Your task to perform on an android device: Go to wifi settings Image 0: 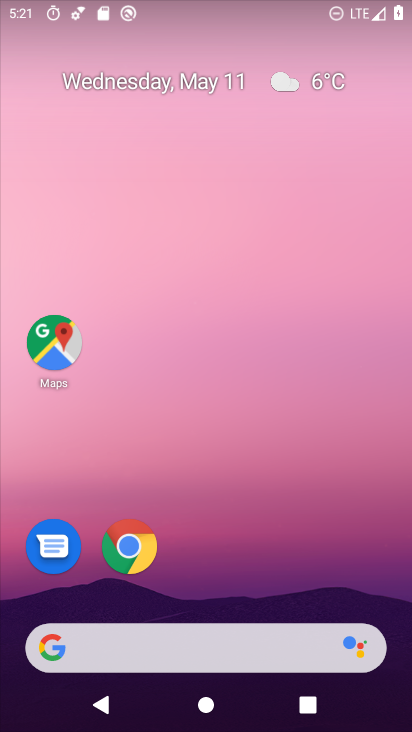
Step 0: drag from (180, 541) to (184, 346)
Your task to perform on an android device: Go to wifi settings Image 1: 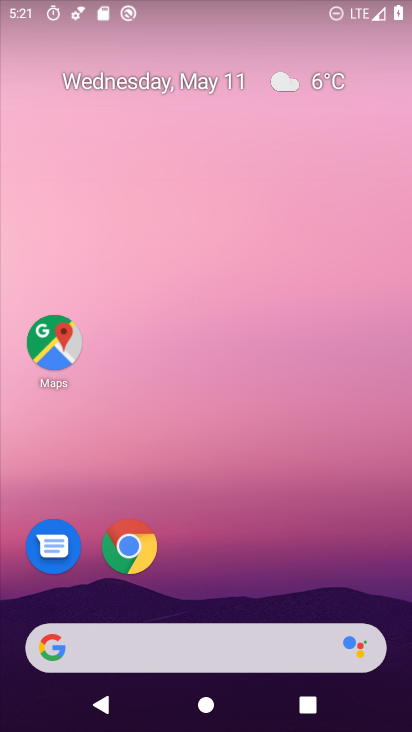
Step 1: drag from (212, 614) to (220, 109)
Your task to perform on an android device: Go to wifi settings Image 2: 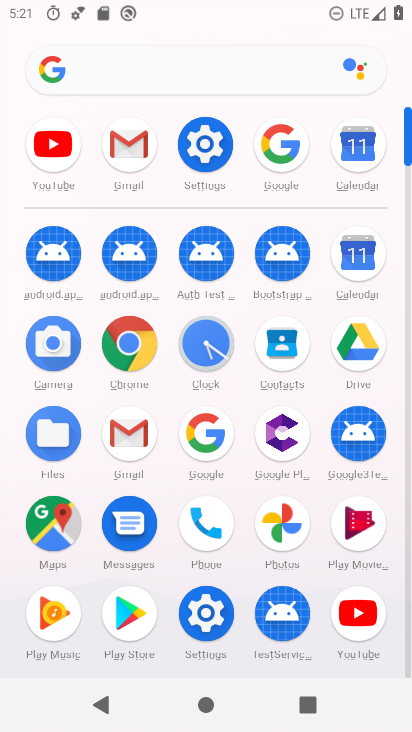
Step 2: click (200, 149)
Your task to perform on an android device: Go to wifi settings Image 3: 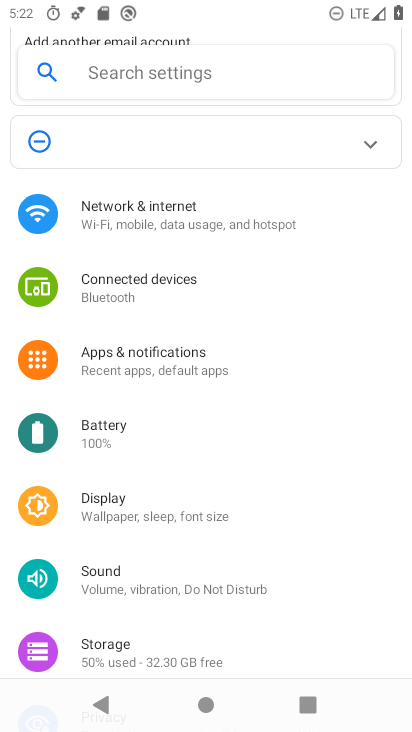
Step 3: click (217, 220)
Your task to perform on an android device: Go to wifi settings Image 4: 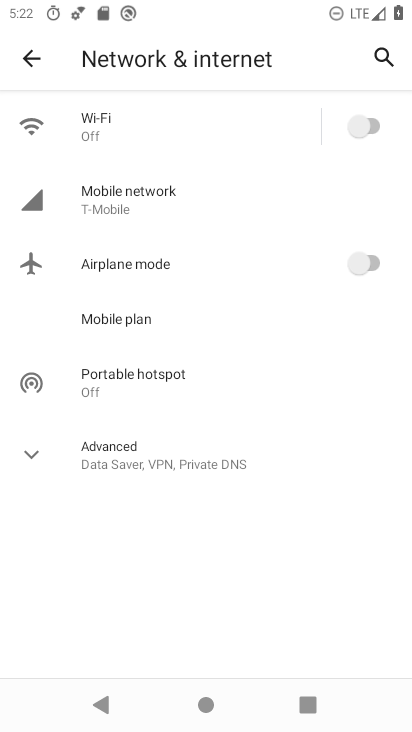
Step 4: click (373, 127)
Your task to perform on an android device: Go to wifi settings Image 5: 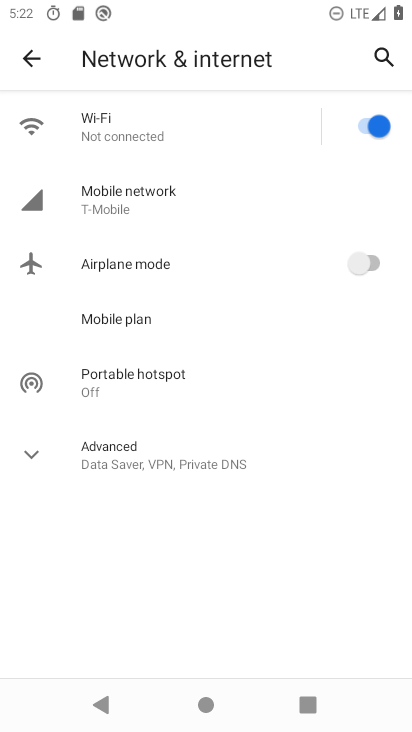
Step 5: click (173, 123)
Your task to perform on an android device: Go to wifi settings Image 6: 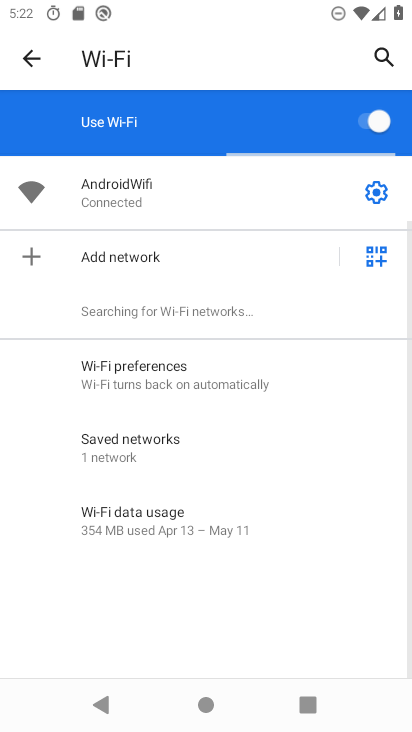
Step 6: click (377, 197)
Your task to perform on an android device: Go to wifi settings Image 7: 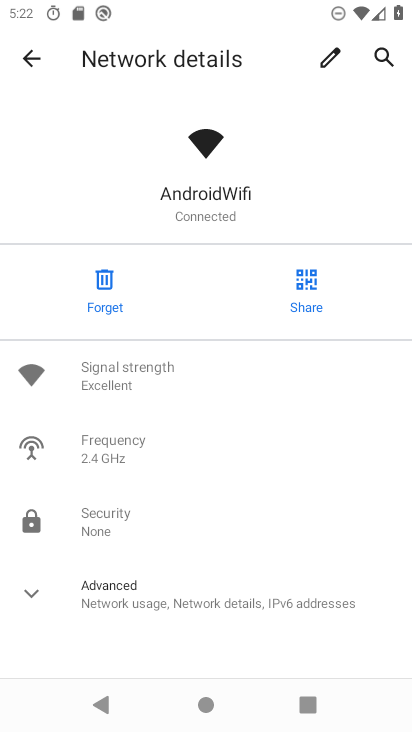
Step 7: click (145, 596)
Your task to perform on an android device: Go to wifi settings Image 8: 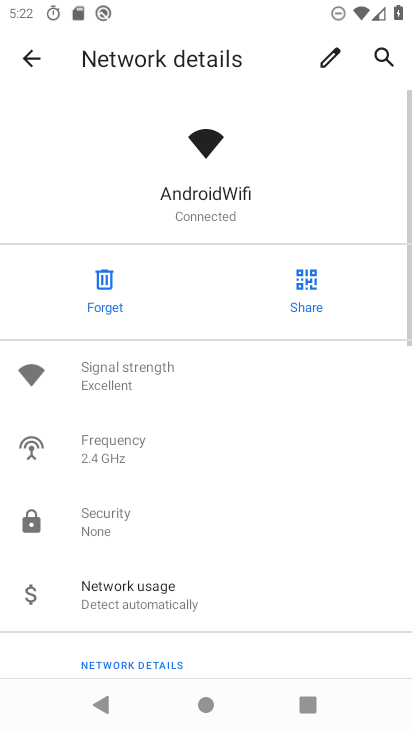
Step 8: task complete